Your task to perform on an android device: See recent photos Image 0: 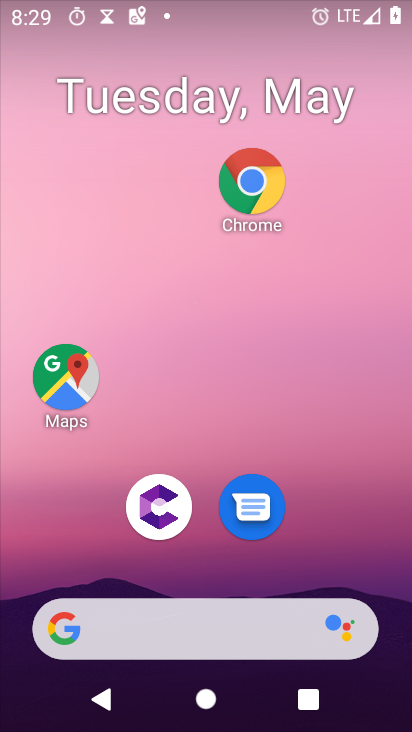
Step 0: drag from (193, 564) to (315, 52)
Your task to perform on an android device: See recent photos Image 1: 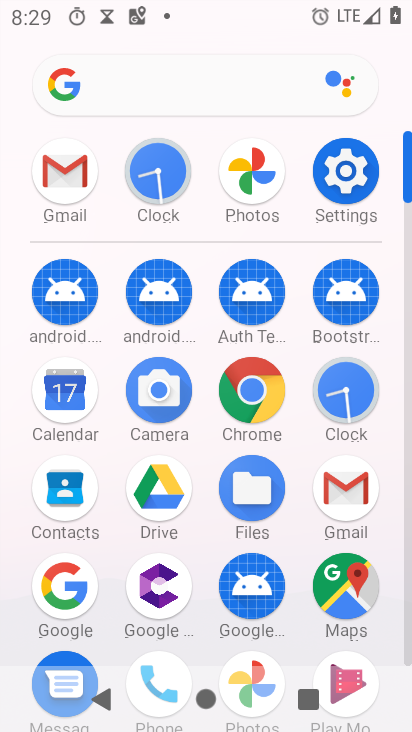
Step 1: click (245, 172)
Your task to perform on an android device: See recent photos Image 2: 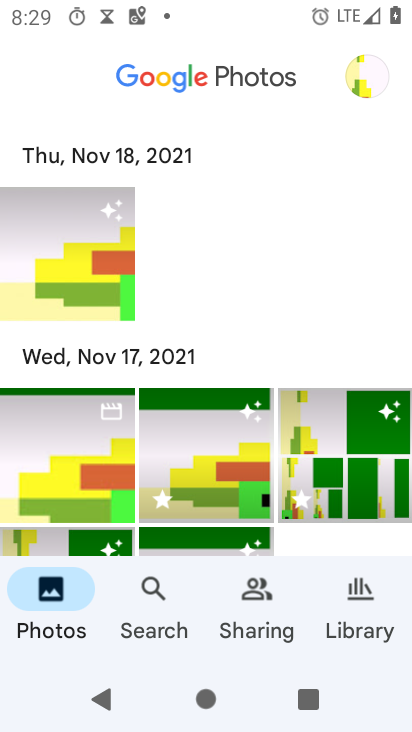
Step 2: task complete